Your task to perform on an android device: Open my contact list Image 0: 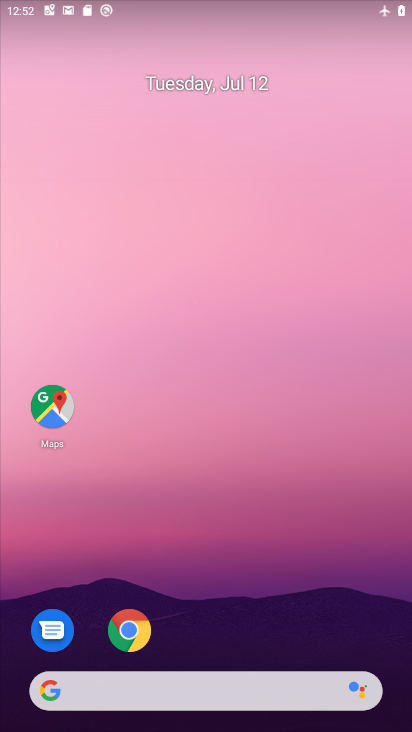
Step 0: drag from (226, 615) to (309, 117)
Your task to perform on an android device: Open my contact list Image 1: 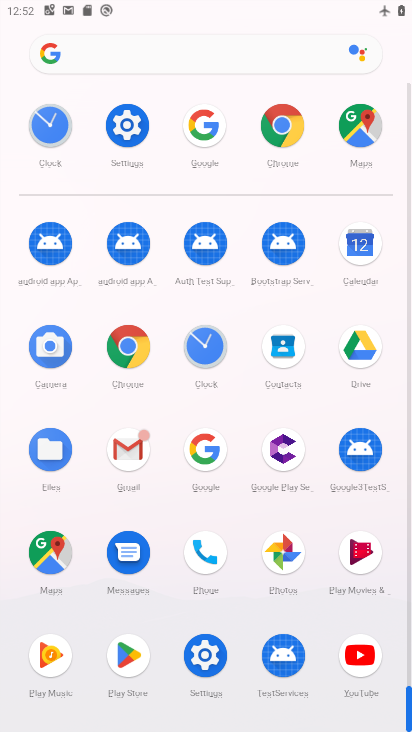
Step 1: click (279, 356)
Your task to perform on an android device: Open my contact list Image 2: 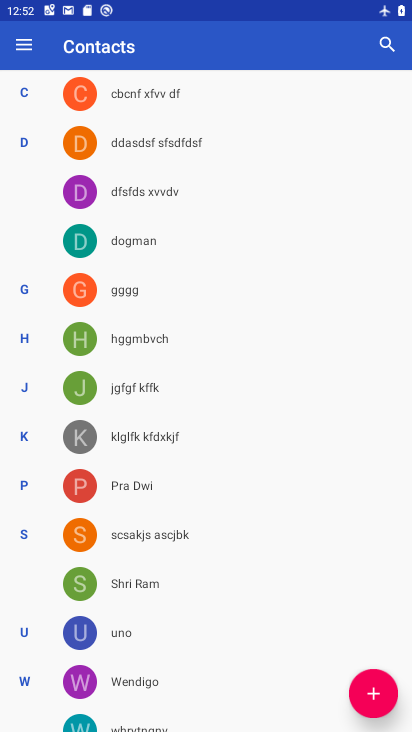
Step 2: task complete